Your task to perform on an android device: check data usage Image 0: 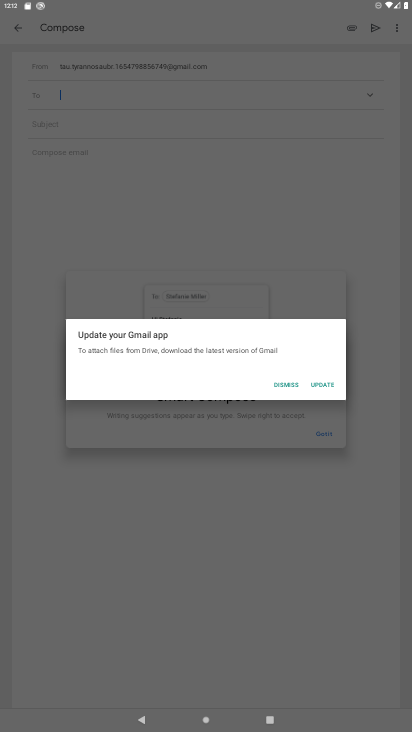
Step 0: drag from (101, 11) to (179, 392)
Your task to perform on an android device: check data usage Image 1: 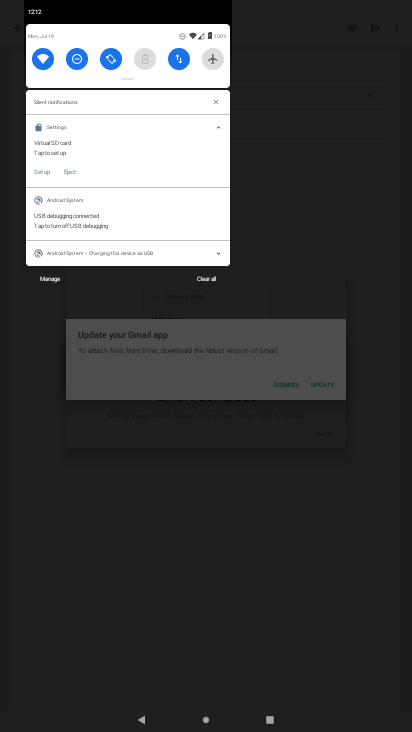
Step 1: click (179, 50)
Your task to perform on an android device: check data usage Image 2: 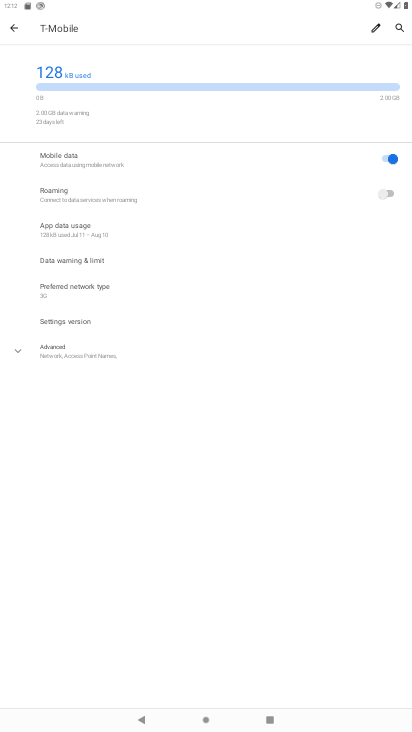
Step 2: task complete